Your task to perform on an android device: Go to Reddit.com Image 0: 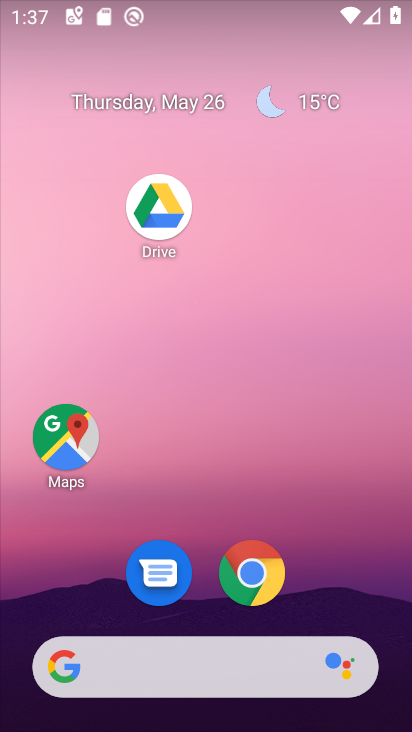
Step 0: click (277, 598)
Your task to perform on an android device: Go to Reddit.com Image 1: 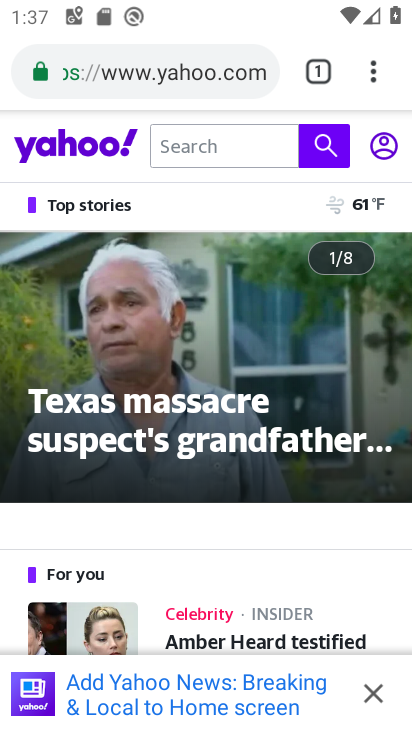
Step 1: click (231, 74)
Your task to perform on an android device: Go to Reddit.com Image 2: 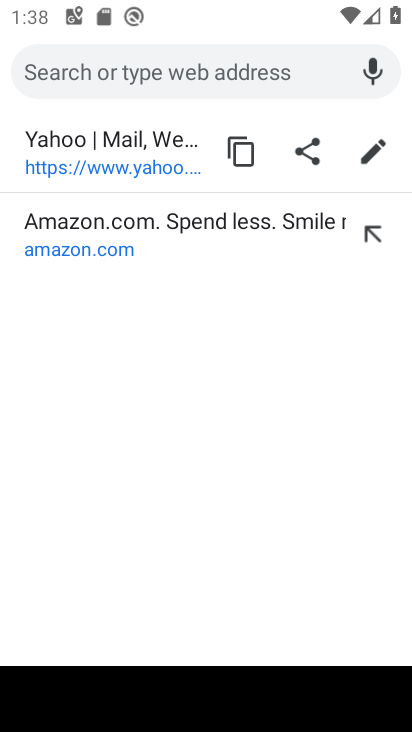
Step 2: type "reddit.com"
Your task to perform on an android device: Go to Reddit.com Image 3: 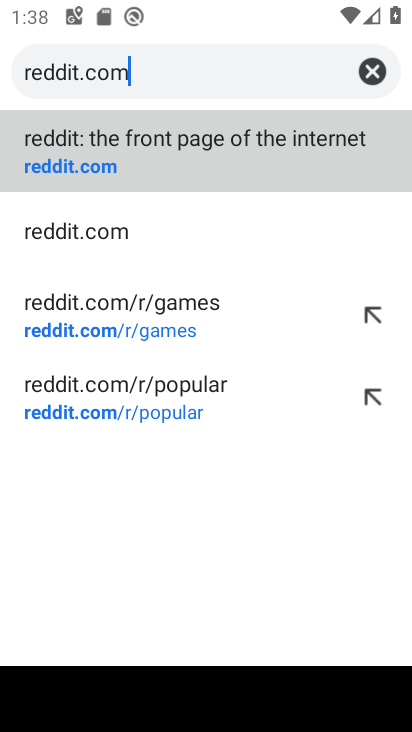
Step 3: click (175, 139)
Your task to perform on an android device: Go to Reddit.com Image 4: 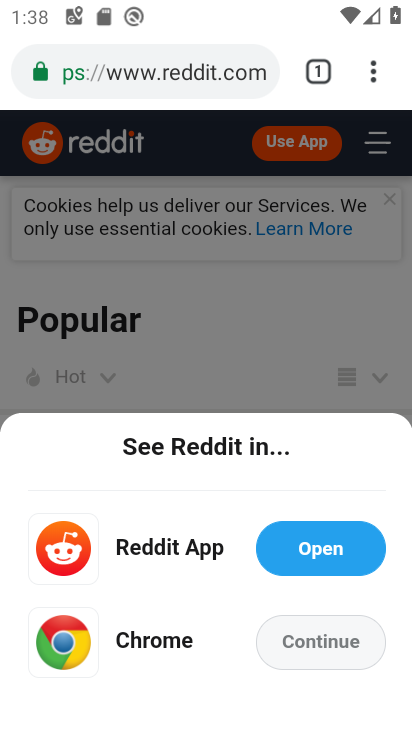
Step 4: click (303, 635)
Your task to perform on an android device: Go to Reddit.com Image 5: 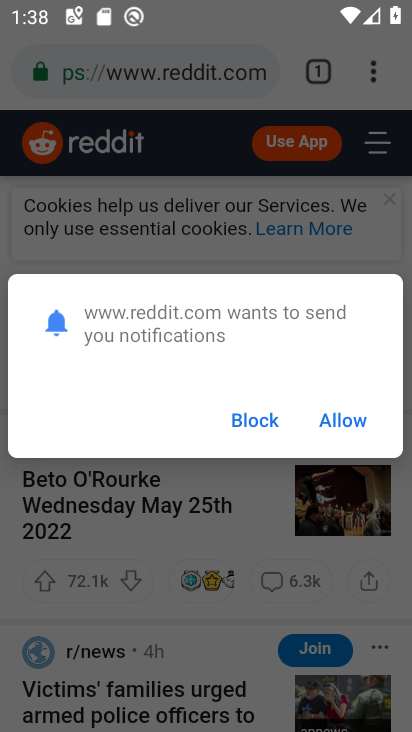
Step 5: click (338, 424)
Your task to perform on an android device: Go to Reddit.com Image 6: 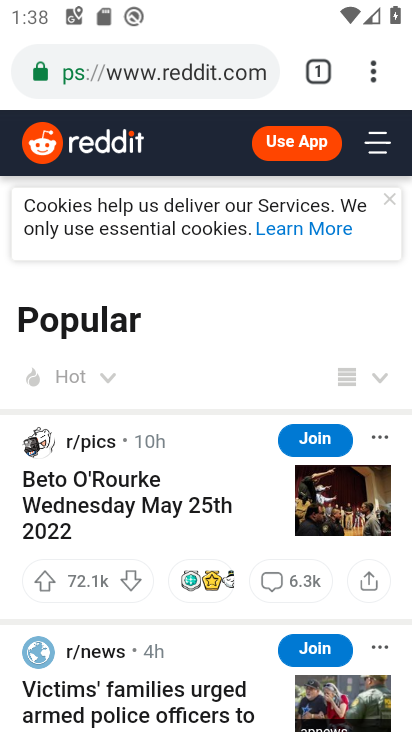
Step 6: task complete